Your task to perform on an android device: Is it going to rain today? Image 0: 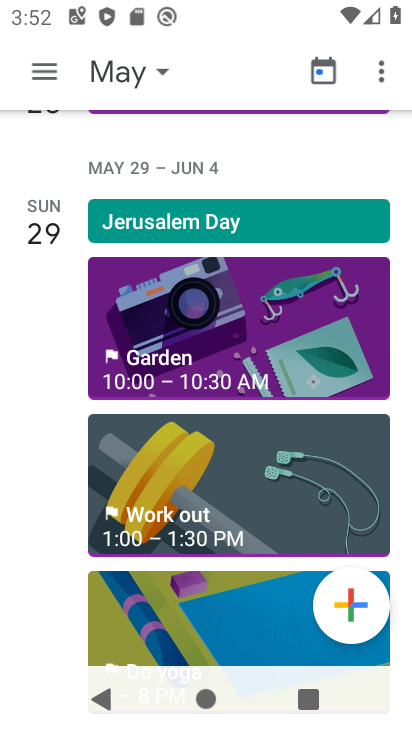
Step 0: press home button
Your task to perform on an android device: Is it going to rain today? Image 1: 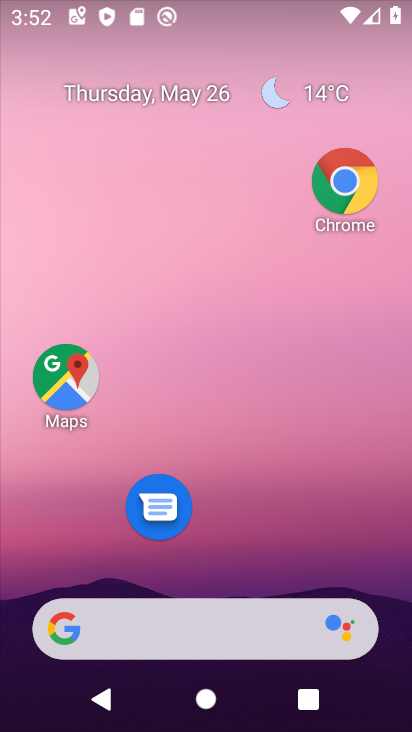
Step 1: click (344, 181)
Your task to perform on an android device: Is it going to rain today? Image 2: 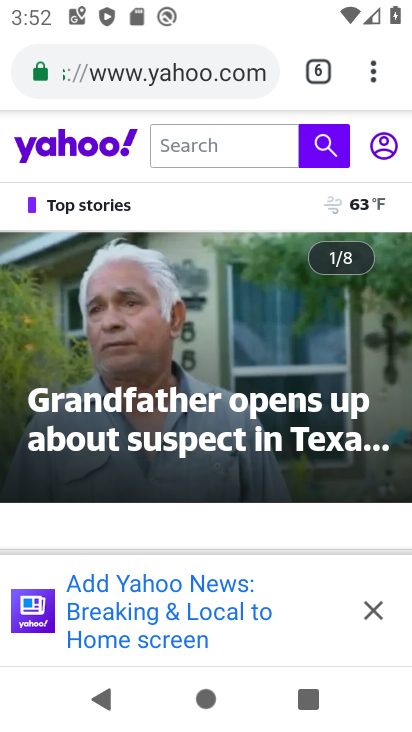
Step 2: click (362, 65)
Your task to perform on an android device: Is it going to rain today? Image 3: 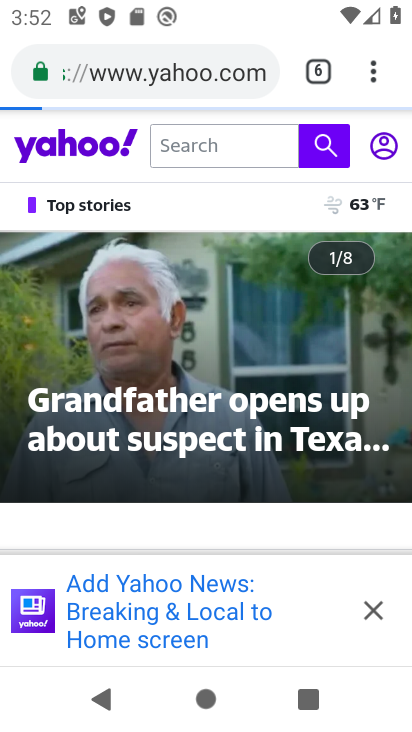
Step 3: click (179, 132)
Your task to perform on an android device: Is it going to rain today? Image 4: 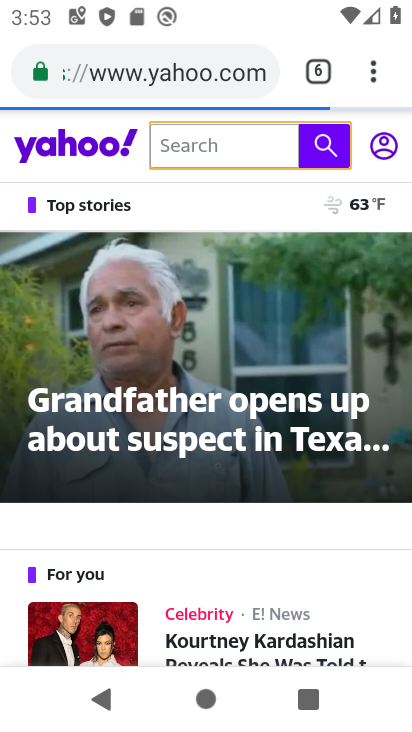
Step 4: click (180, 79)
Your task to perform on an android device: Is it going to rain today? Image 5: 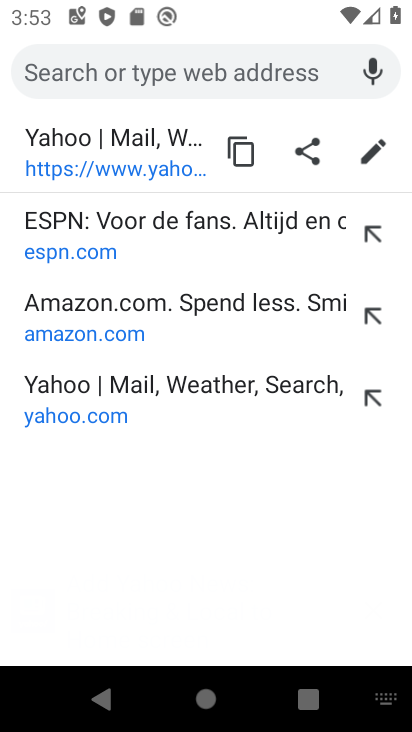
Step 5: type "Is it going to rain today?"
Your task to perform on an android device: Is it going to rain today? Image 6: 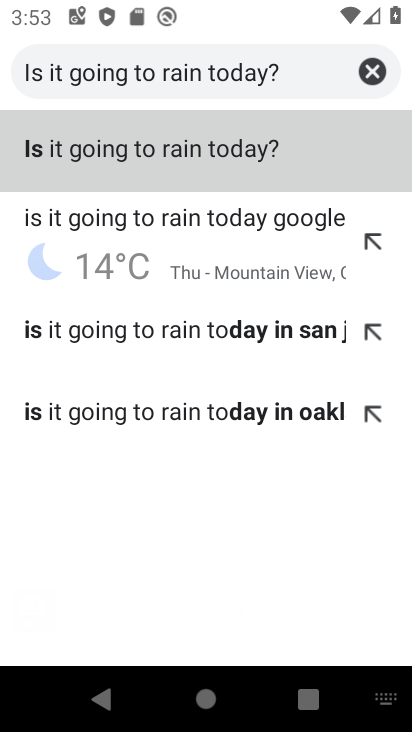
Step 6: click (180, 163)
Your task to perform on an android device: Is it going to rain today? Image 7: 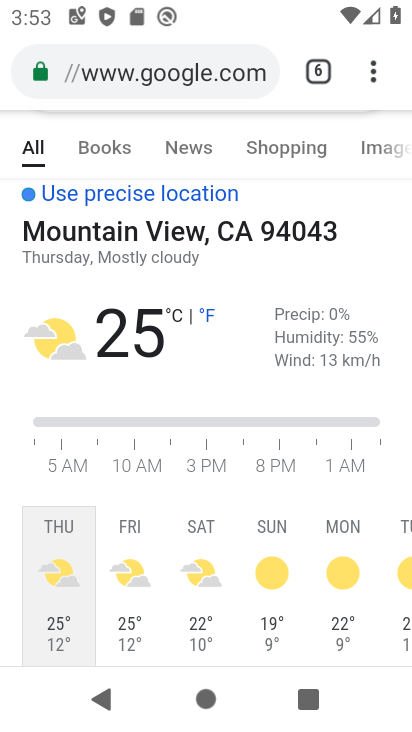
Step 7: task complete